Your task to perform on an android device: allow cookies in the chrome app Image 0: 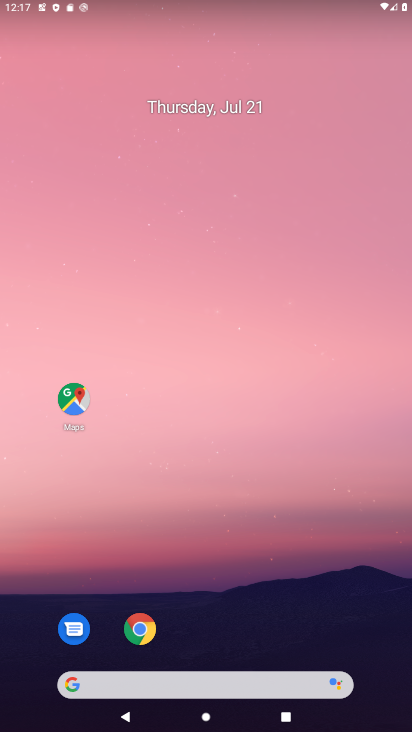
Step 0: drag from (293, 584) to (320, 170)
Your task to perform on an android device: allow cookies in the chrome app Image 1: 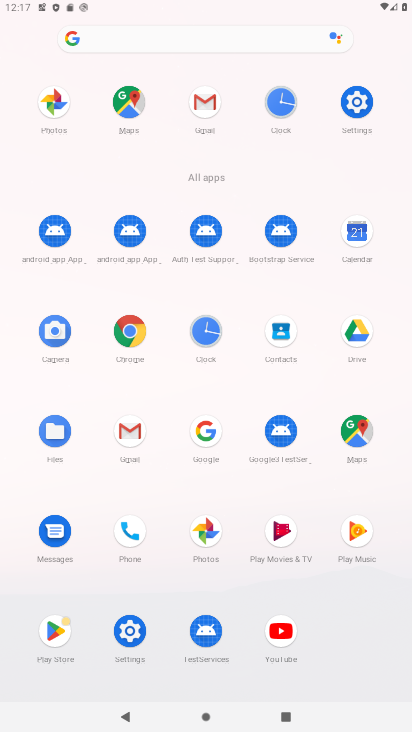
Step 1: click (130, 332)
Your task to perform on an android device: allow cookies in the chrome app Image 2: 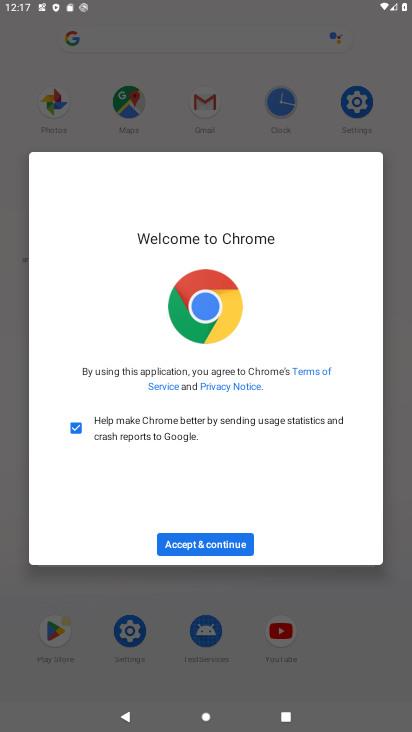
Step 2: click (179, 539)
Your task to perform on an android device: allow cookies in the chrome app Image 3: 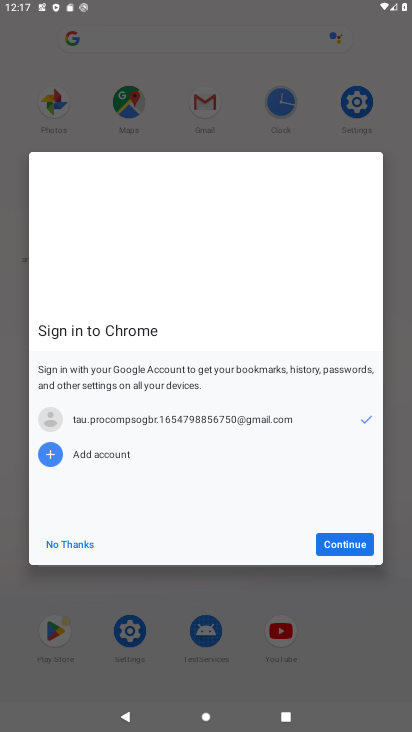
Step 3: click (330, 541)
Your task to perform on an android device: allow cookies in the chrome app Image 4: 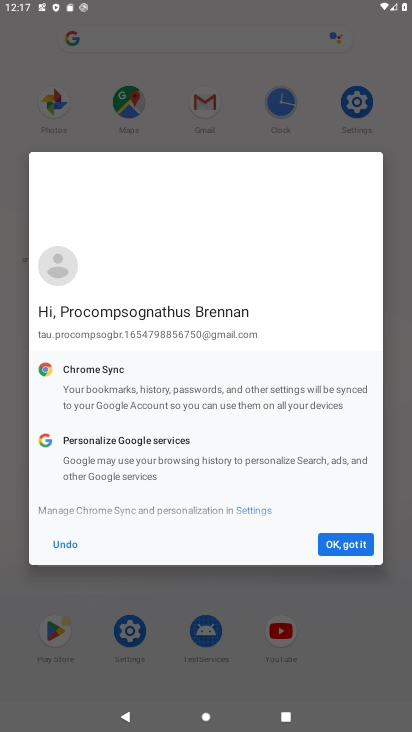
Step 4: click (350, 542)
Your task to perform on an android device: allow cookies in the chrome app Image 5: 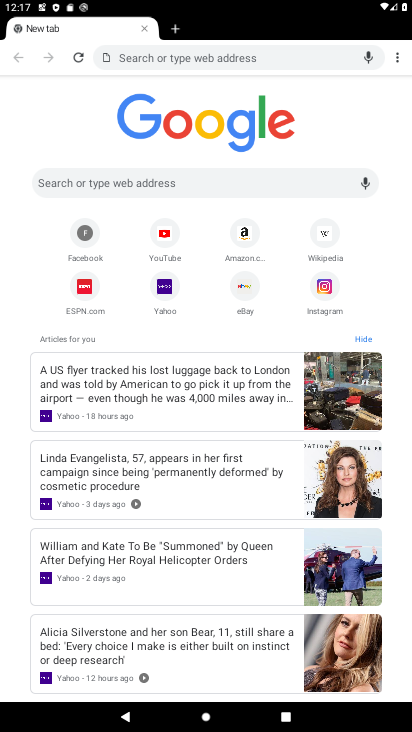
Step 5: click (396, 59)
Your task to perform on an android device: allow cookies in the chrome app Image 6: 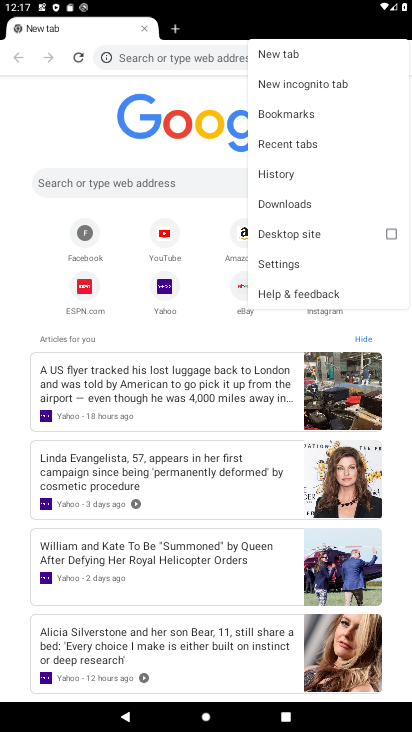
Step 6: click (303, 262)
Your task to perform on an android device: allow cookies in the chrome app Image 7: 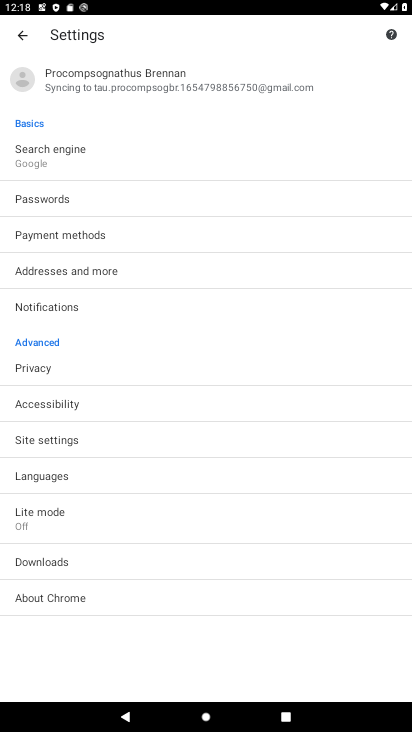
Step 7: drag from (313, 509) to (318, 356)
Your task to perform on an android device: allow cookies in the chrome app Image 8: 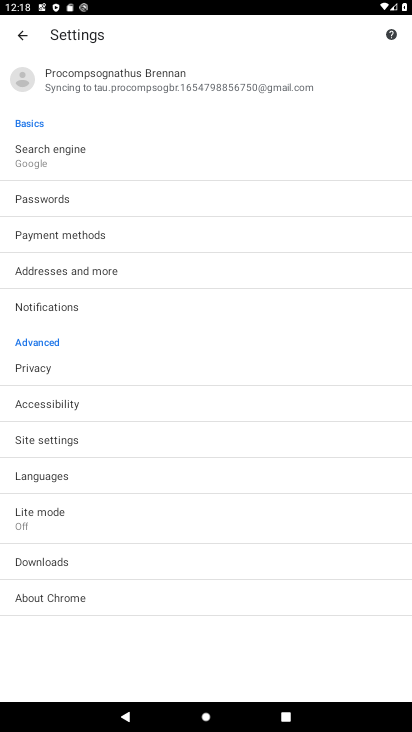
Step 8: click (169, 433)
Your task to perform on an android device: allow cookies in the chrome app Image 9: 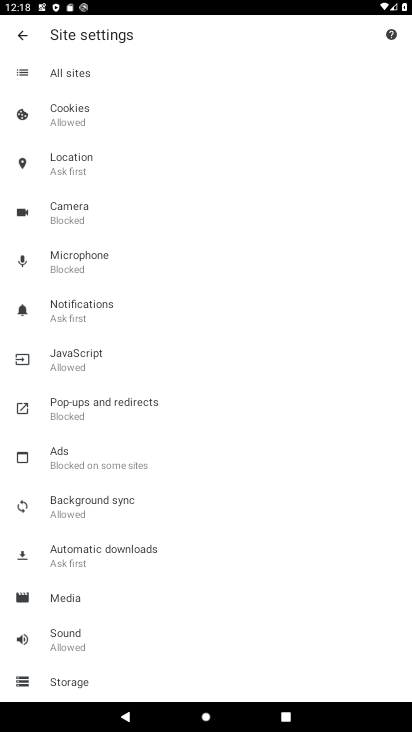
Step 9: click (93, 121)
Your task to perform on an android device: allow cookies in the chrome app Image 10: 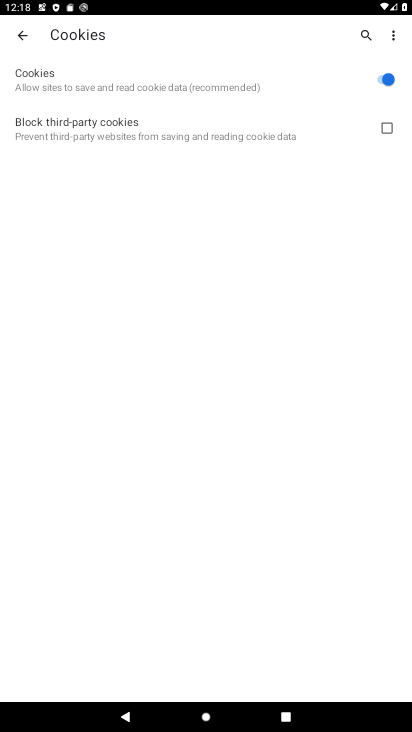
Step 10: task complete